Your task to perform on an android device: Play the last video I watched on Youtube Image 0: 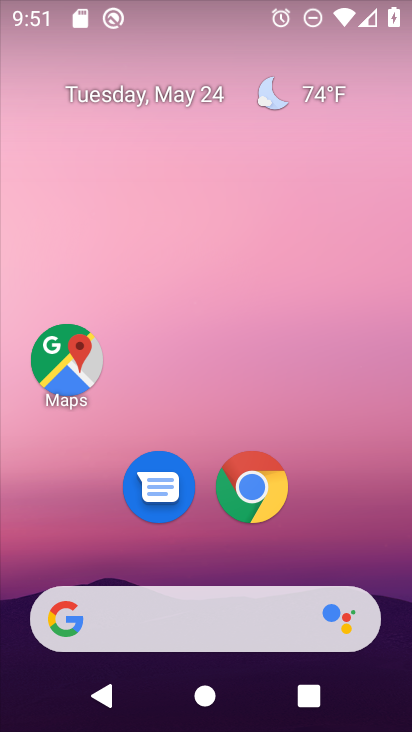
Step 0: drag from (370, 578) to (404, 1)
Your task to perform on an android device: Play the last video I watched on Youtube Image 1: 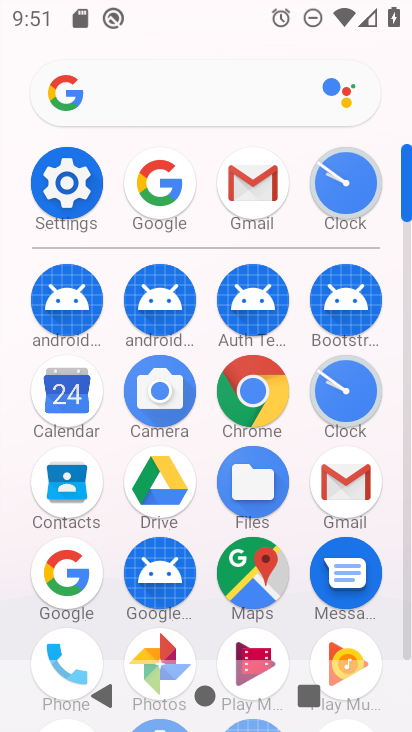
Step 1: click (407, 485)
Your task to perform on an android device: Play the last video I watched on Youtube Image 2: 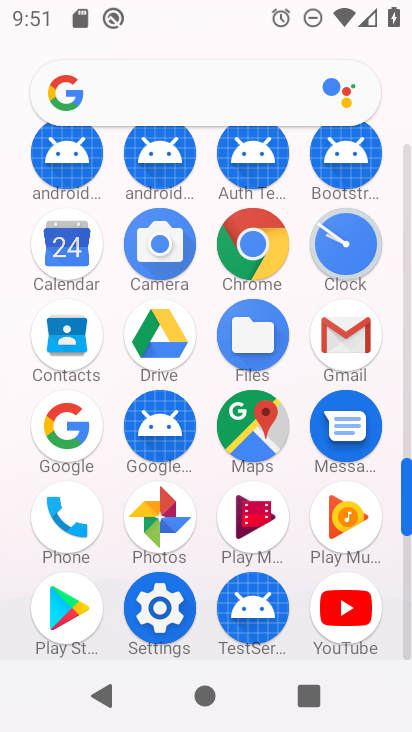
Step 2: click (345, 611)
Your task to perform on an android device: Play the last video I watched on Youtube Image 3: 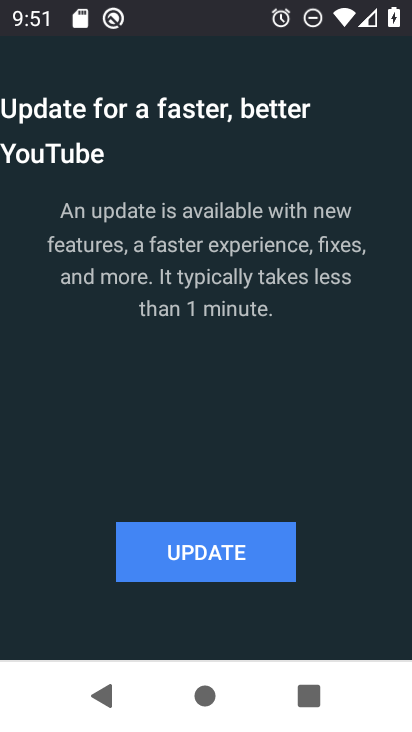
Step 3: click (211, 555)
Your task to perform on an android device: Play the last video I watched on Youtube Image 4: 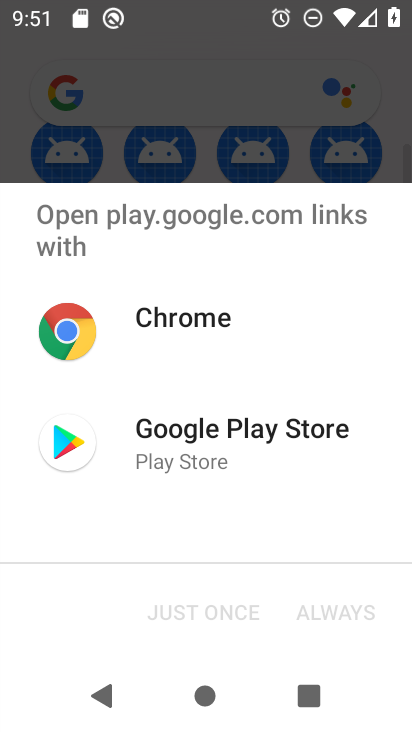
Step 4: click (118, 444)
Your task to perform on an android device: Play the last video I watched on Youtube Image 5: 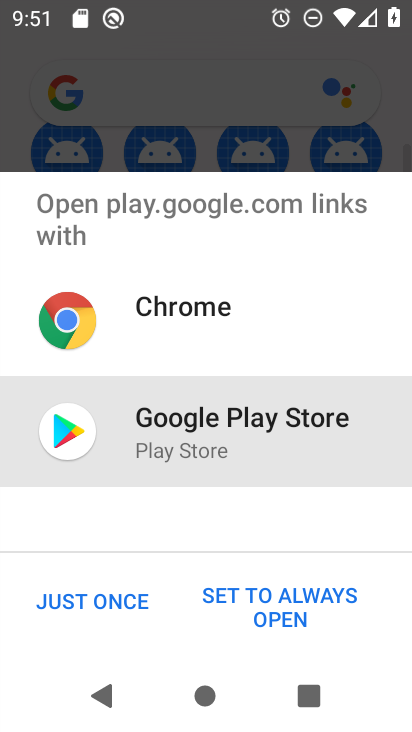
Step 5: click (133, 601)
Your task to perform on an android device: Play the last video I watched on Youtube Image 6: 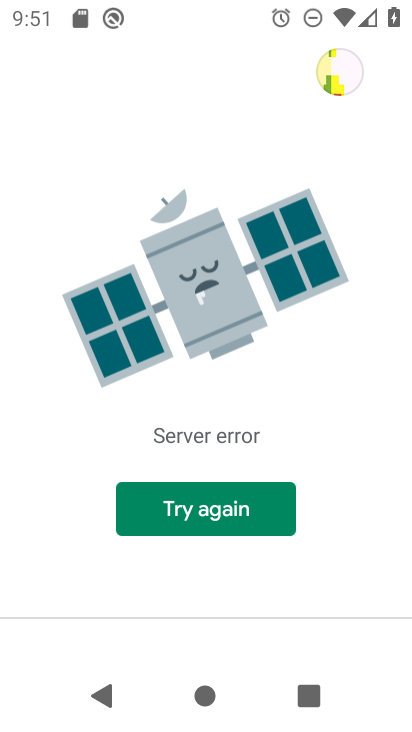
Step 6: task complete